Your task to perform on an android device: open chrome and create a bookmark for the current page Image 0: 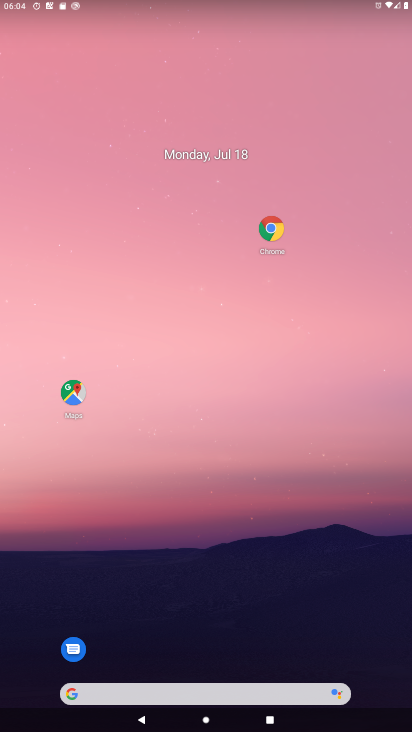
Step 0: click (273, 226)
Your task to perform on an android device: open chrome and create a bookmark for the current page Image 1: 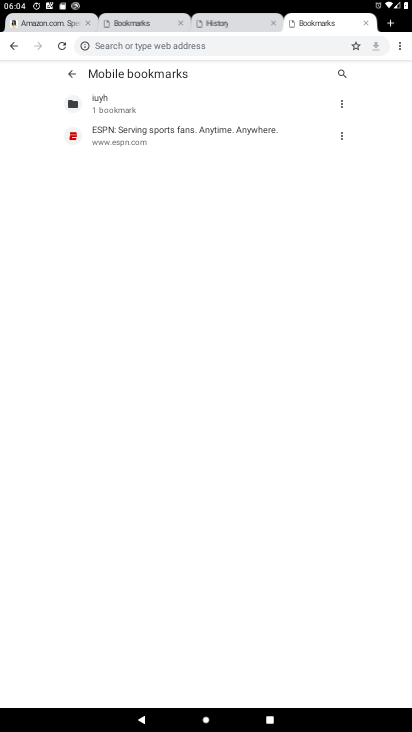
Step 1: click (358, 47)
Your task to perform on an android device: open chrome and create a bookmark for the current page Image 2: 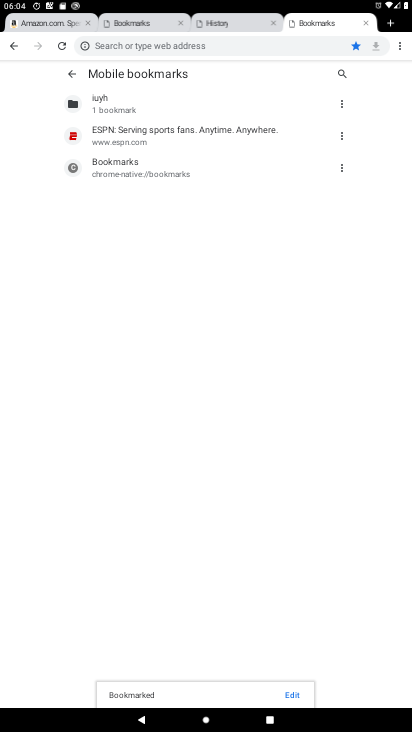
Step 2: task complete